Your task to perform on an android device: Open Youtube and go to the subscriptions tab Image 0: 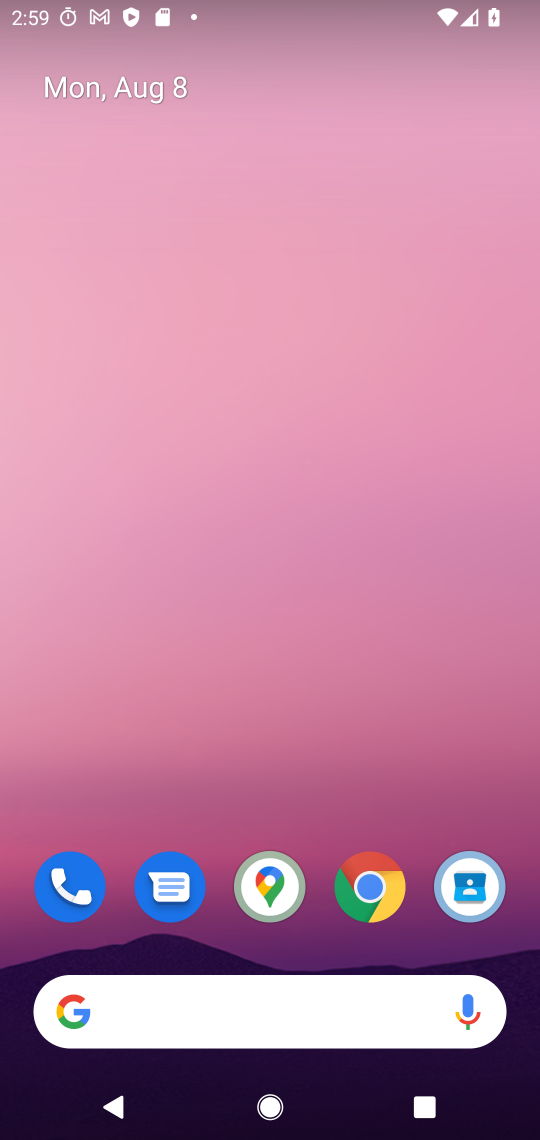
Step 0: drag from (263, 960) to (251, 283)
Your task to perform on an android device: Open Youtube and go to the subscriptions tab Image 1: 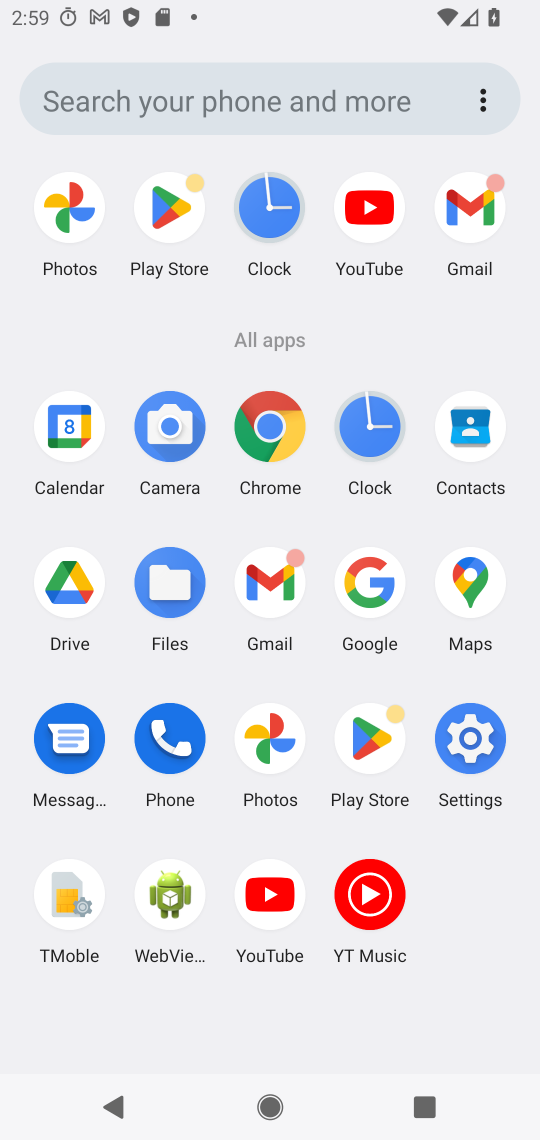
Step 1: click (277, 897)
Your task to perform on an android device: Open Youtube and go to the subscriptions tab Image 2: 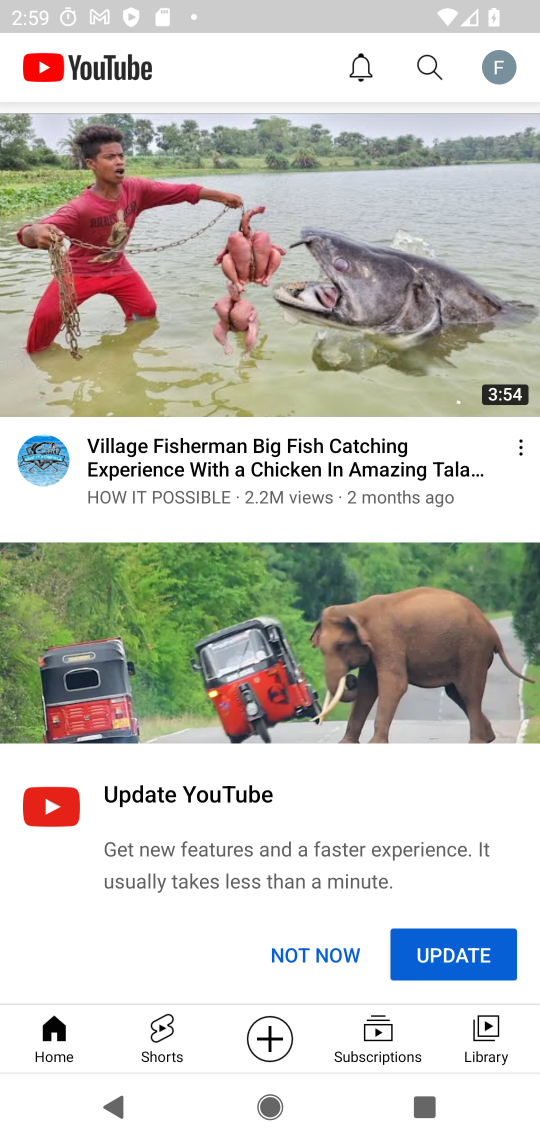
Step 2: click (384, 1047)
Your task to perform on an android device: Open Youtube and go to the subscriptions tab Image 3: 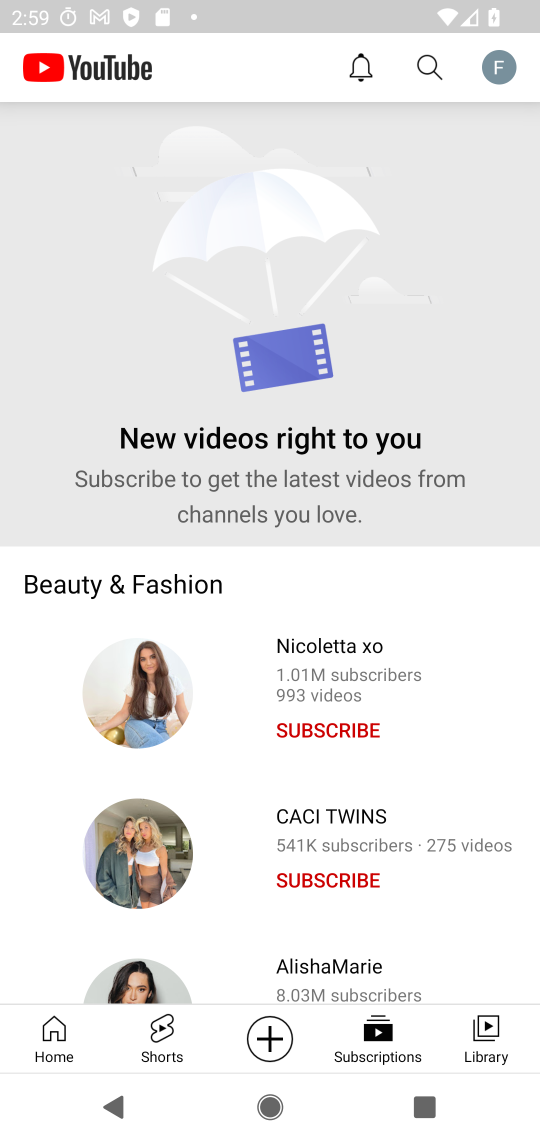
Step 3: task complete